Your task to perform on an android device: turn on showing notifications on the lock screen Image 0: 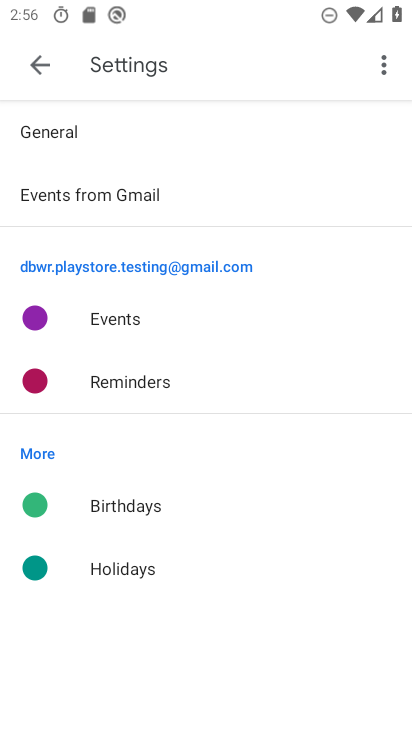
Step 0: press home button
Your task to perform on an android device: turn on showing notifications on the lock screen Image 1: 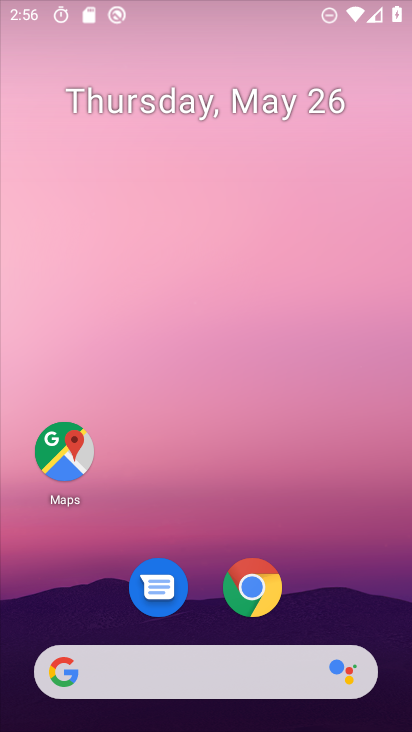
Step 1: drag from (323, 497) to (329, 136)
Your task to perform on an android device: turn on showing notifications on the lock screen Image 2: 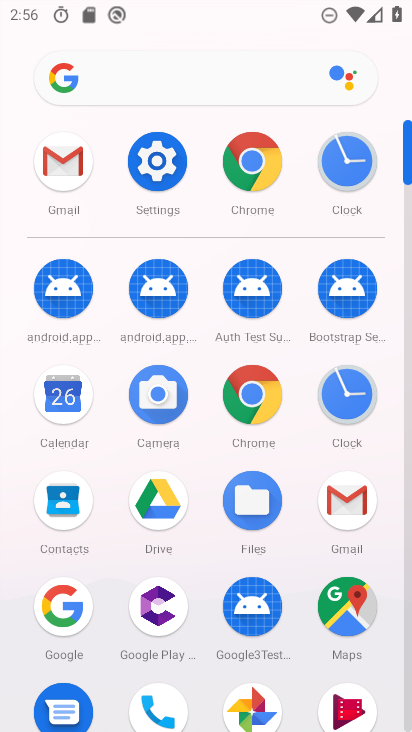
Step 2: click (169, 179)
Your task to perform on an android device: turn on showing notifications on the lock screen Image 3: 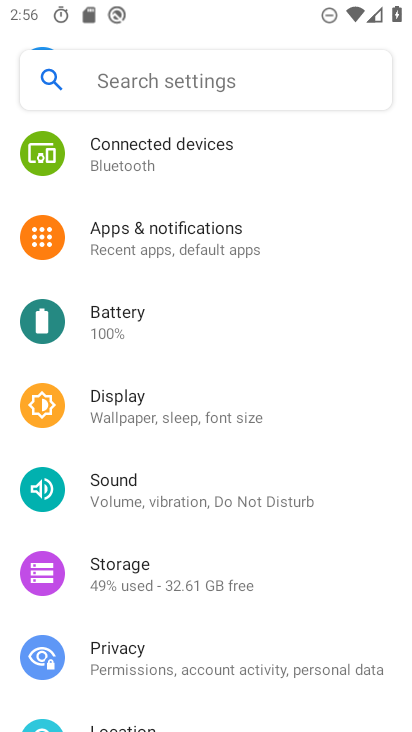
Step 3: click (186, 258)
Your task to perform on an android device: turn on showing notifications on the lock screen Image 4: 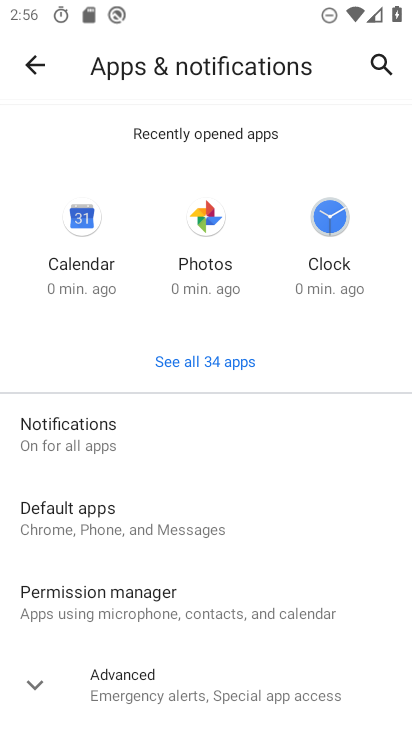
Step 4: click (113, 442)
Your task to perform on an android device: turn on showing notifications on the lock screen Image 5: 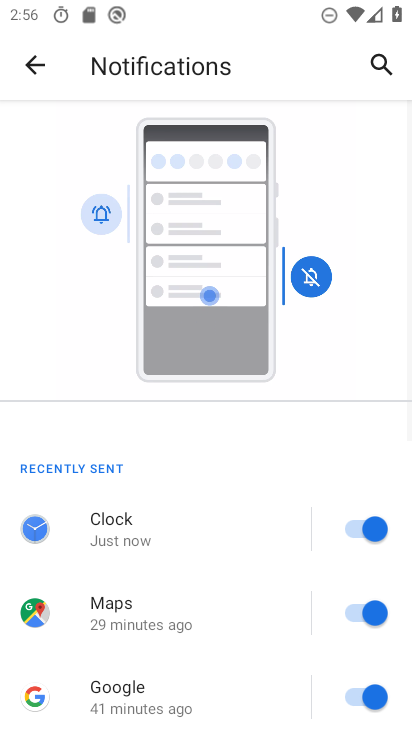
Step 5: drag from (220, 539) to (265, 147)
Your task to perform on an android device: turn on showing notifications on the lock screen Image 6: 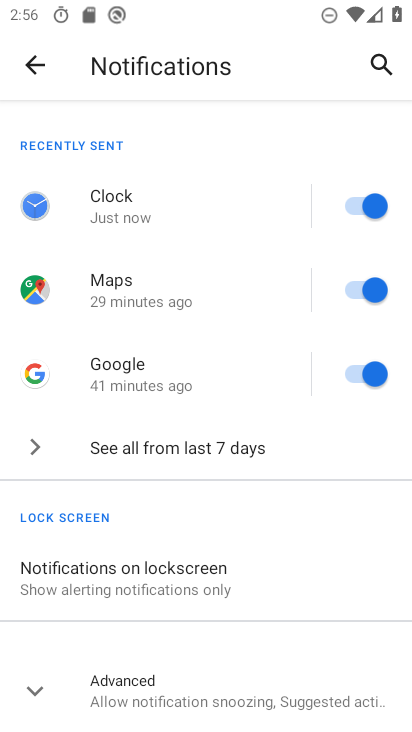
Step 6: click (197, 567)
Your task to perform on an android device: turn on showing notifications on the lock screen Image 7: 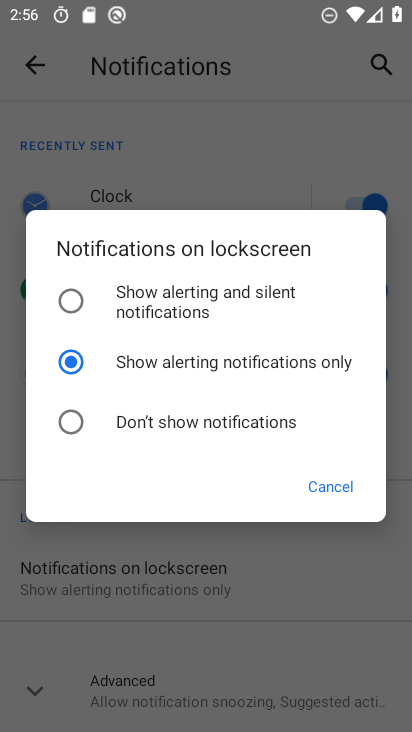
Step 7: task complete